Your task to perform on an android device: turn off airplane mode Image 0: 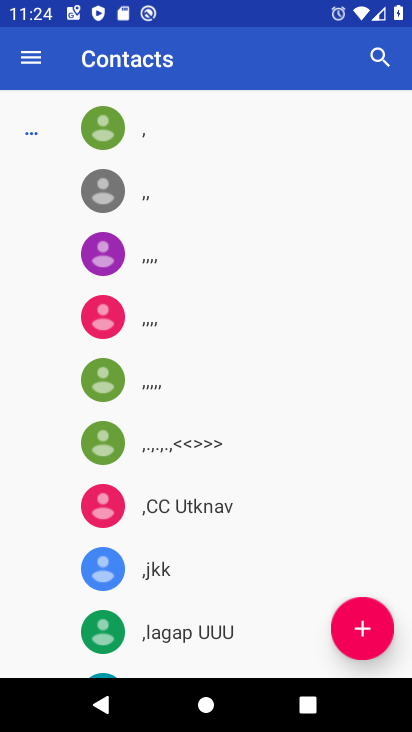
Step 0: press home button
Your task to perform on an android device: turn off airplane mode Image 1: 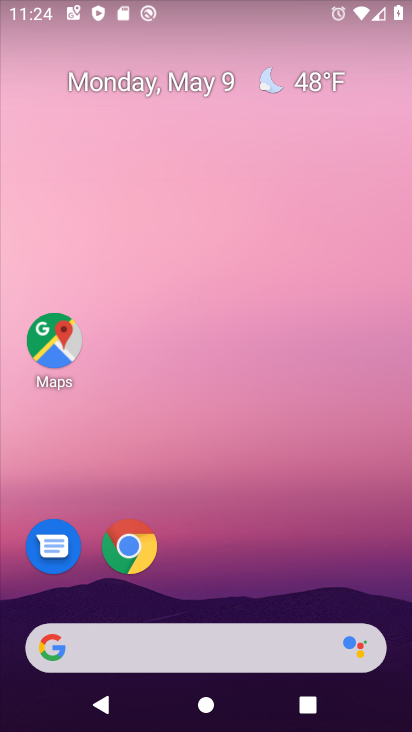
Step 1: drag from (344, 594) to (332, 17)
Your task to perform on an android device: turn off airplane mode Image 2: 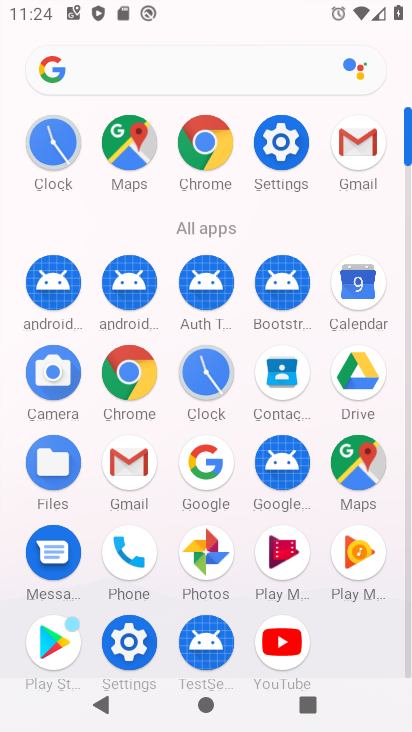
Step 2: click (280, 152)
Your task to perform on an android device: turn off airplane mode Image 3: 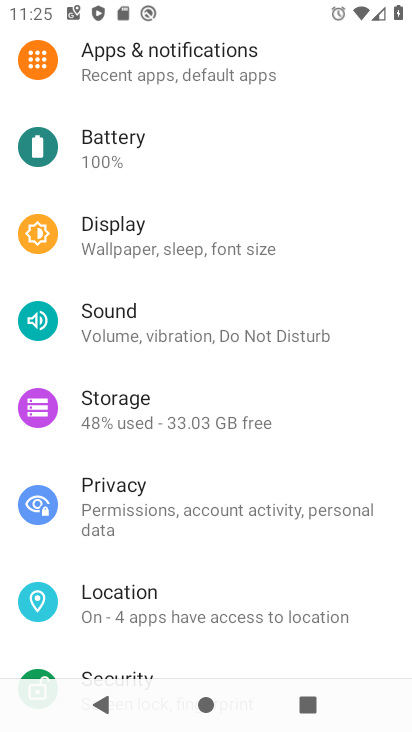
Step 3: drag from (358, 140) to (337, 468)
Your task to perform on an android device: turn off airplane mode Image 4: 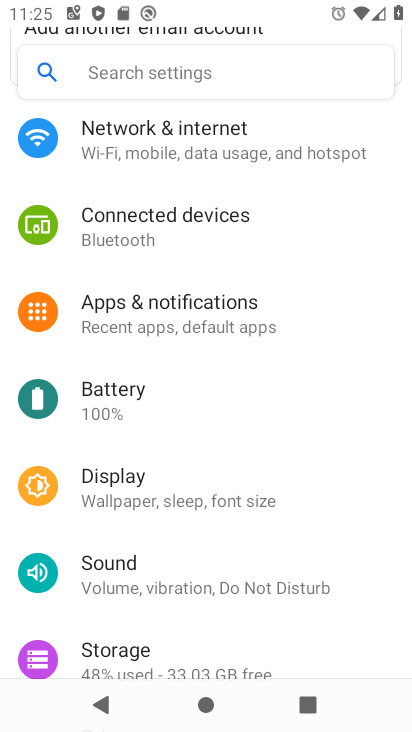
Step 4: click (238, 156)
Your task to perform on an android device: turn off airplane mode Image 5: 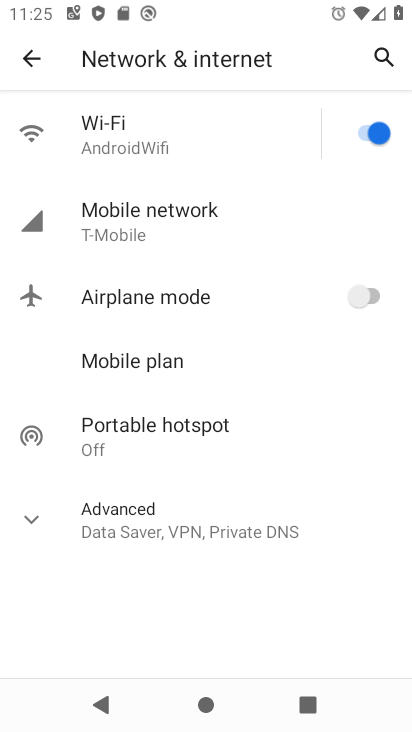
Step 5: task complete